Your task to perform on an android device: turn on wifi Image 0: 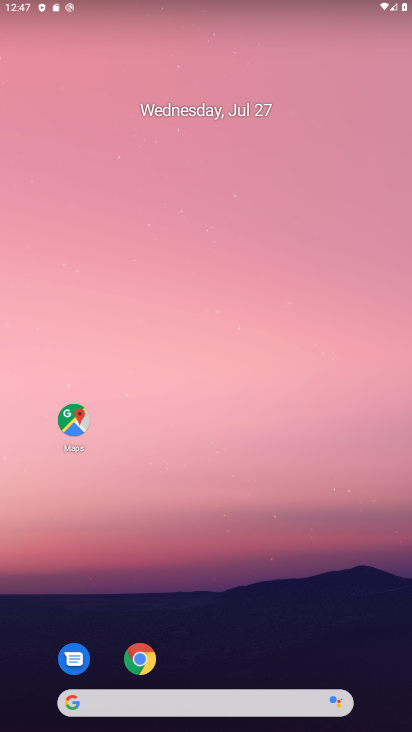
Step 0: drag from (289, 599) to (254, 57)
Your task to perform on an android device: turn on wifi Image 1: 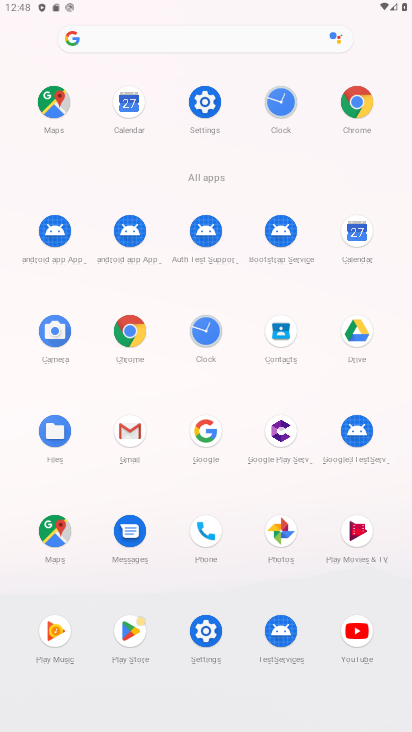
Step 1: click (210, 110)
Your task to perform on an android device: turn on wifi Image 2: 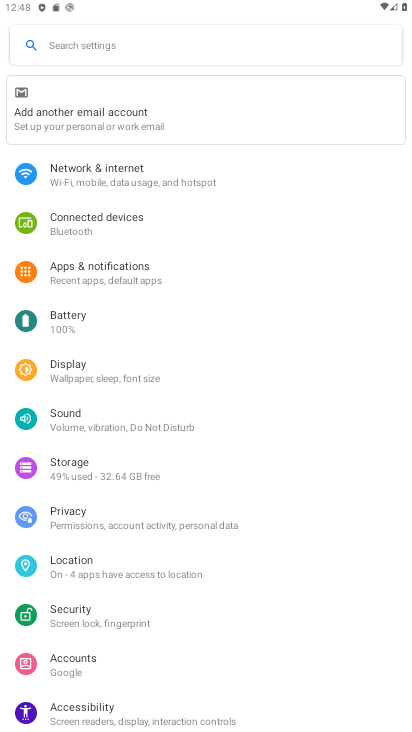
Step 2: click (130, 178)
Your task to perform on an android device: turn on wifi Image 3: 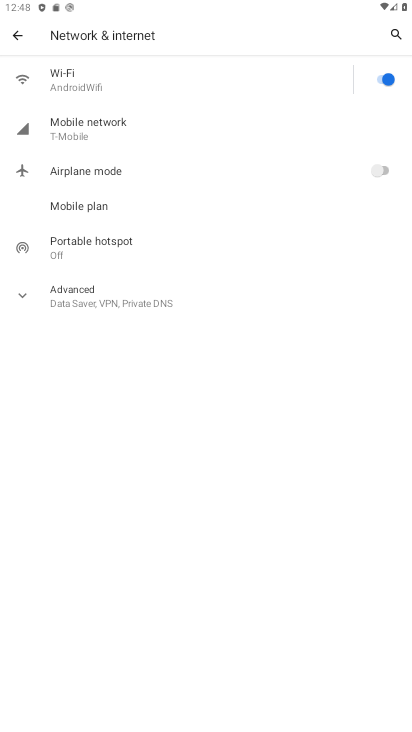
Step 3: click (304, 73)
Your task to perform on an android device: turn on wifi Image 4: 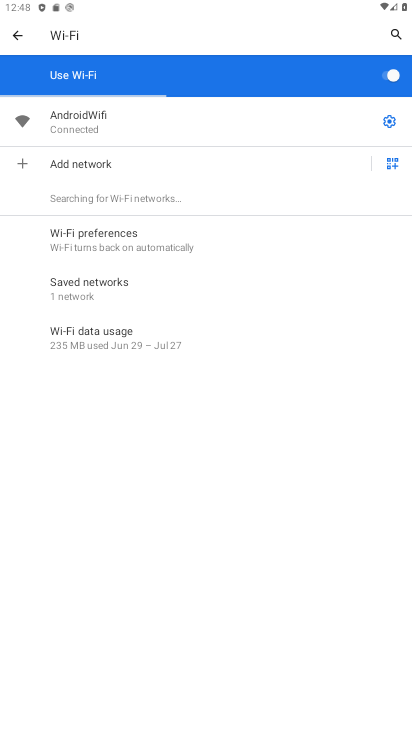
Step 4: task complete